Your task to perform on an android device: Open my contact list Image 0: 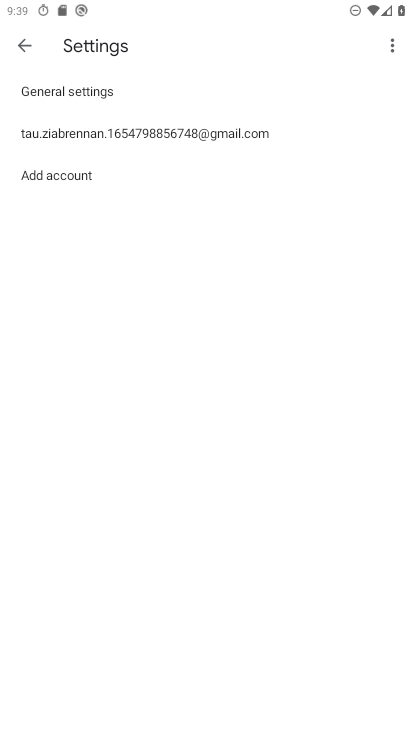
Step 0: press home button
Your task to perform on an android device: Open my contact list Image 1: 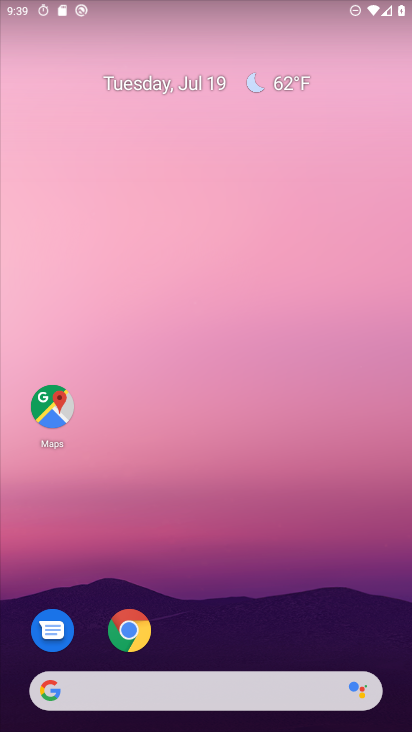
Step 1: drag from (153, 677) to (154, 301)
Your task to perform on an android device: Open my contact list Image 2: 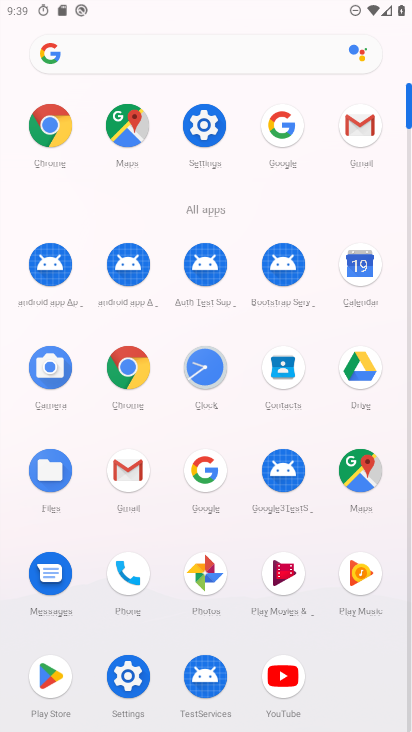
Step 2: click (285, 365)
Your task to perform on an android device: Open my contact list Image 3: 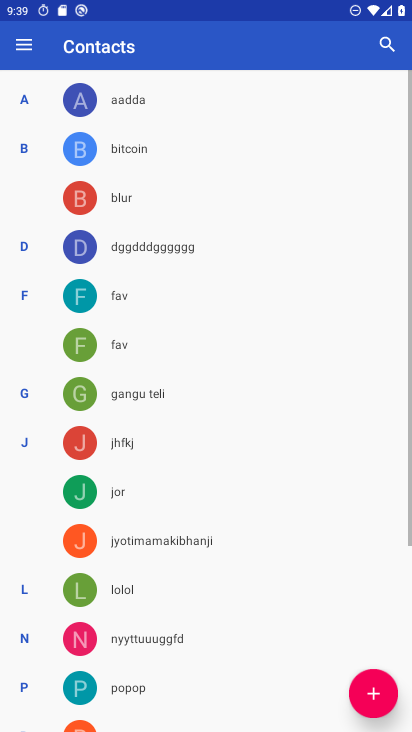
Step 3: task complete